Your task to perform on an android device: Search for vegetarian restaurants on Maps Image 0: 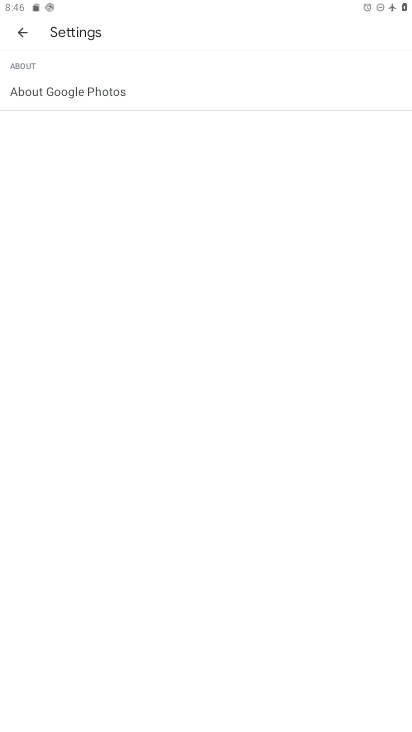
Step 0: press home button
Your task to perform on an android device: Search for vegetarian restaurants on Maps Image 1: 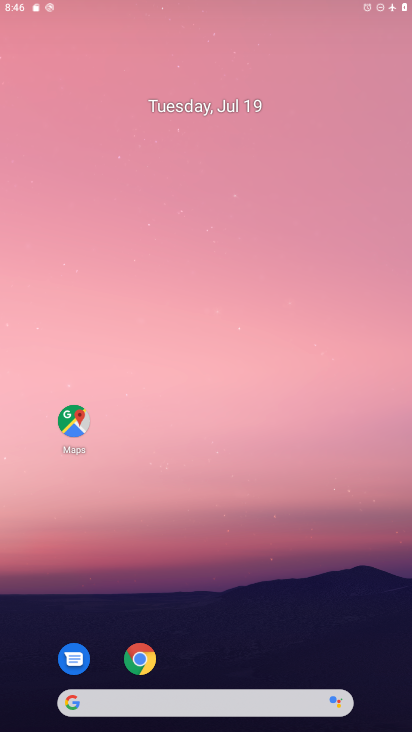
Step 1: drag from (250, 645) to (261, 77)
Your task to perform on an android device: Search for vegetarian restaurants on Maps Image 2: 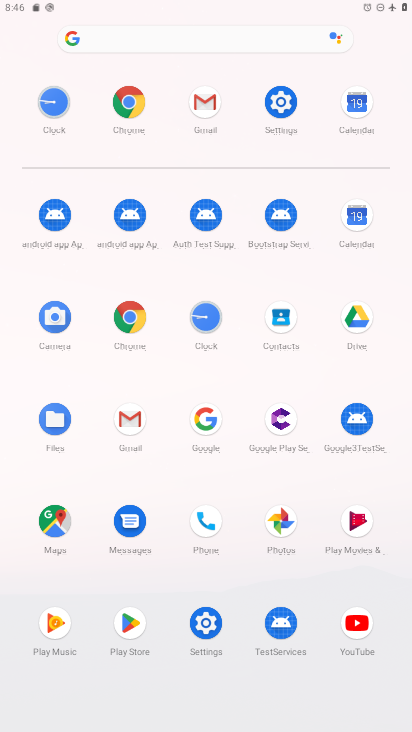
Step 2: click (67, 509)
Your task to perform on an android device: Search for vegetarian restaurants on Maps Image 3: 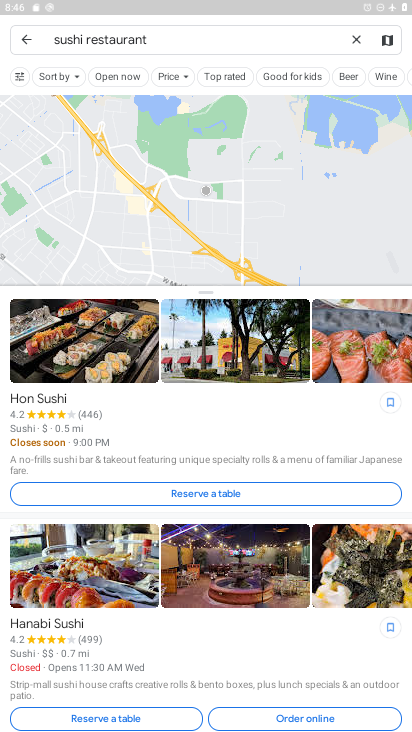
Step 3: click (359, 35)
Your task to perform on an android device: Search for vegetarian restaurants on Maps Image 4: 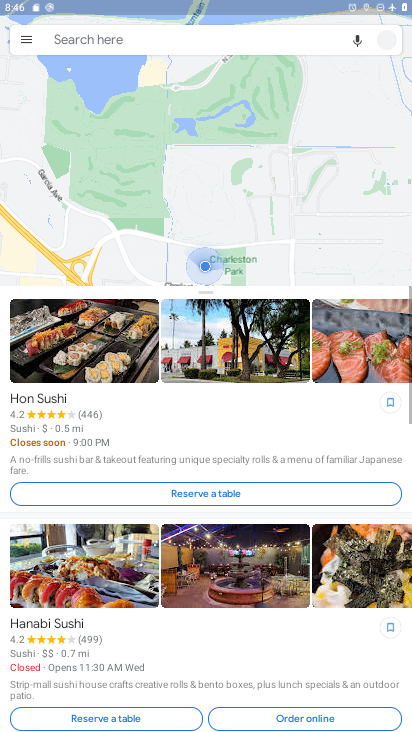
Step 4: click (223, 40)
Your task to perform on an android device: Search for vegetarian restaurants on Maps Image 5: 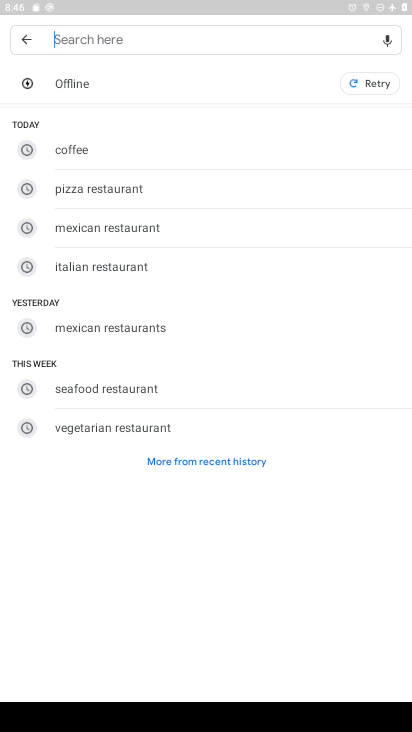
Step 5: click (99, 431)
Your task to perform on an android device: Search for vegetarian restaurants on Maps Image 6: 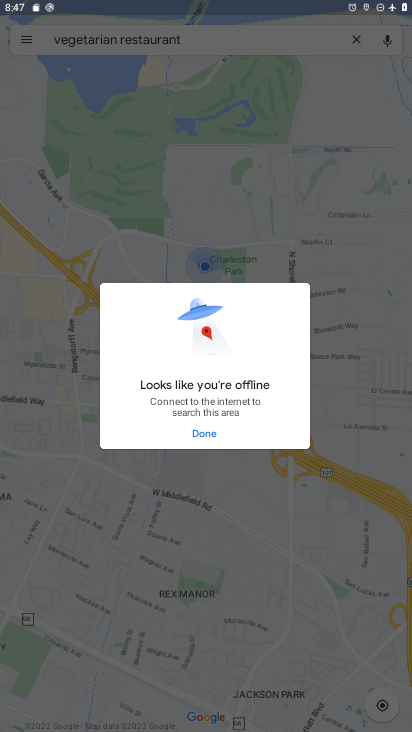
Step 6: task complete